Your task to perform on an android device: Go to CNN.com Image 0: 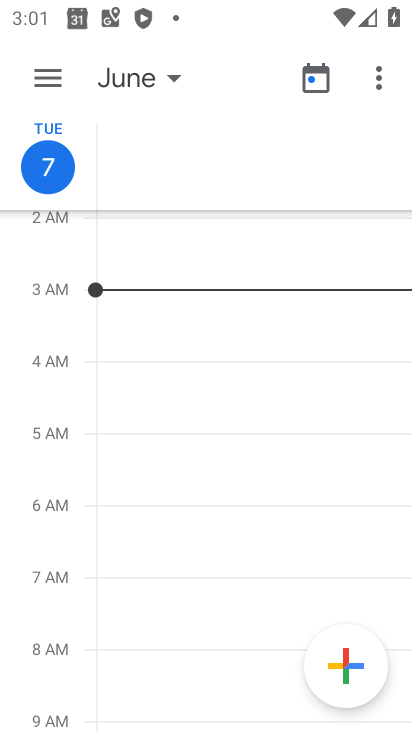
Step 0: press home button
Your task to perform on an android device: Go to CNN.com Image 1: 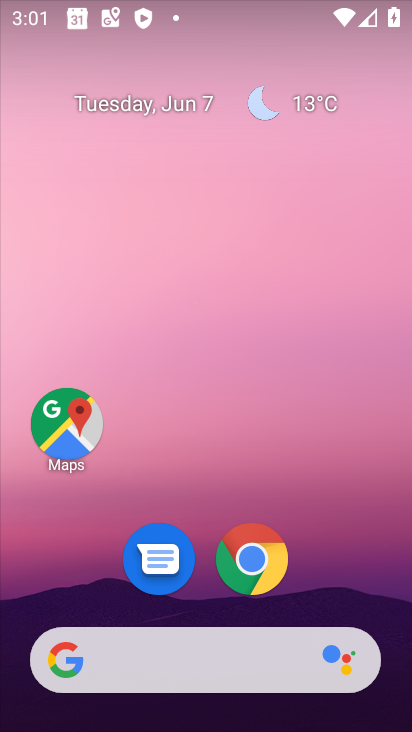
Step 1: click (257, 561)
Your task to perform on an android device: Go to CNN.com Image 2: 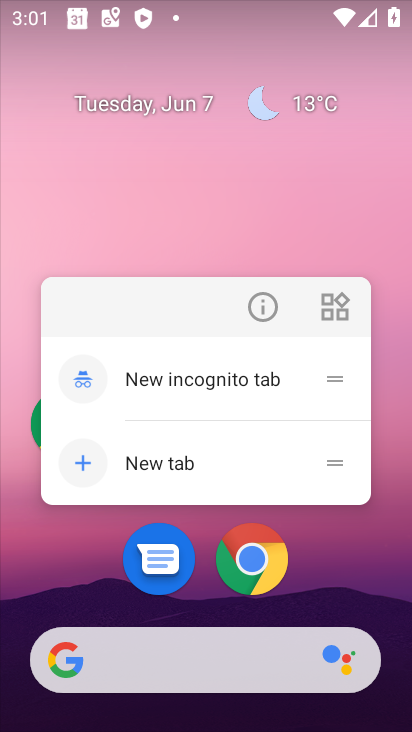
Step 2: click (161, 466)
Your task to perform on an android device: Go to CNN.com Image 3: 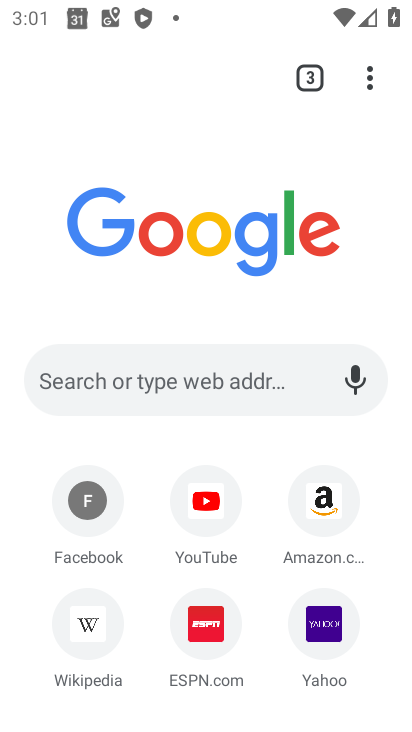
Step 3: click (224, 375)
Your task to perform on an android device: Go to CNN.com Image 4: 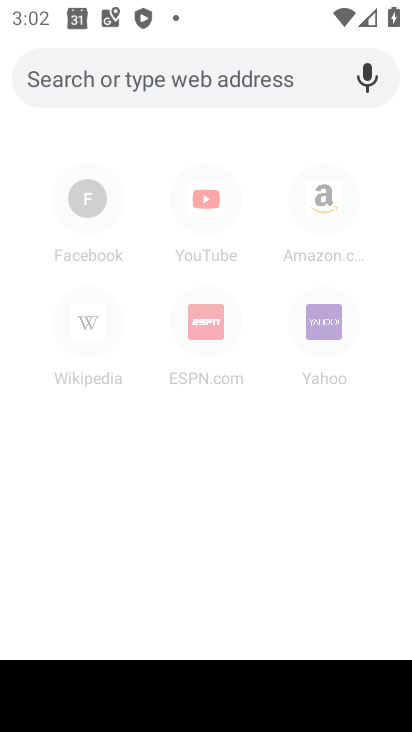
Step 4: type "CNN.com"
Your task to perform on an android device: Go to CNN.com Image 5: 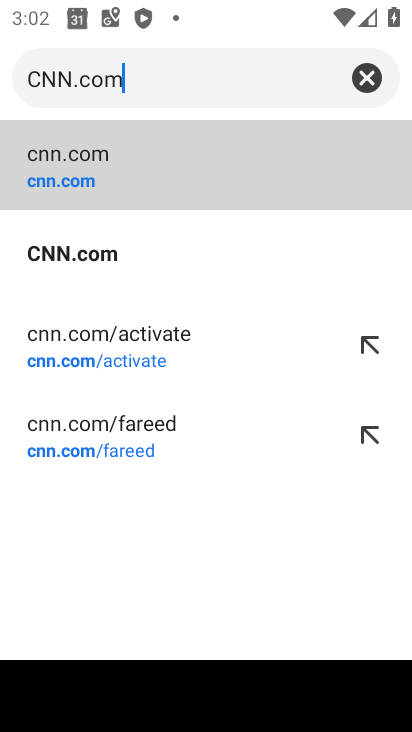
Step 5: click (101, 250)
Your task to perform on an android device: Go to CNN.com Image 6: 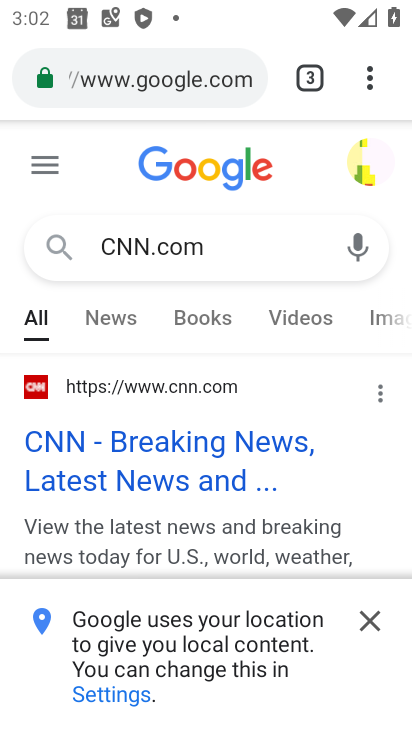
Step 6: click (247, 440)
Your task to perform on an android device: Go to CNN.com Image 7: 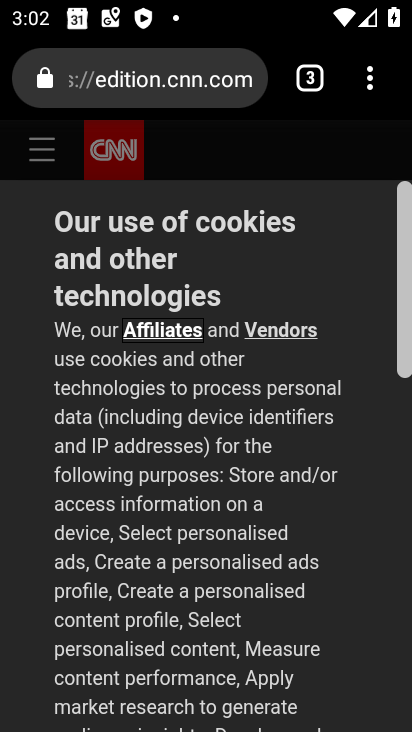
Step 7: task complete